Your task to perform on an android device: Turn off the flashlight Image 0: 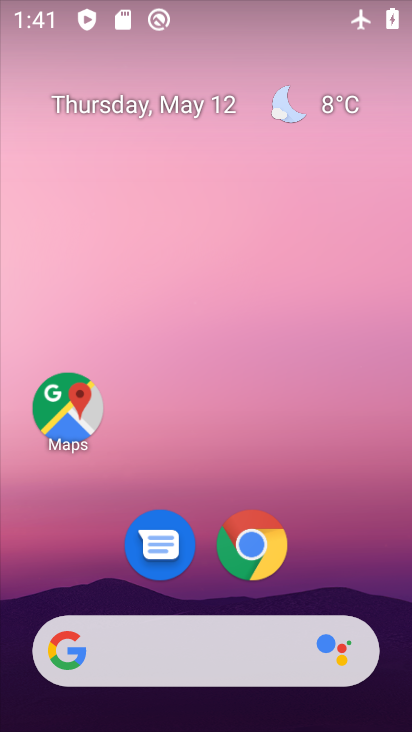
Step 0: drag from (225, 10) to (215, 321)
Your task to perform on an android device: Turn off the flashlight Image 1: 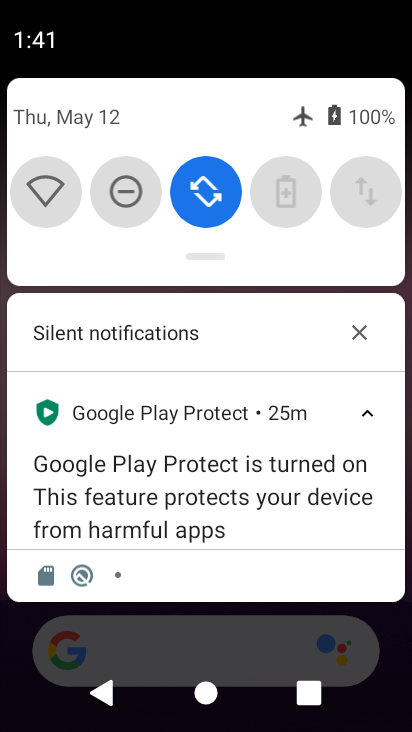
Step 1: drag from (212, 256) to (209, 381)
Your task to perform on an android device: Turn off the flashlight Image 2: 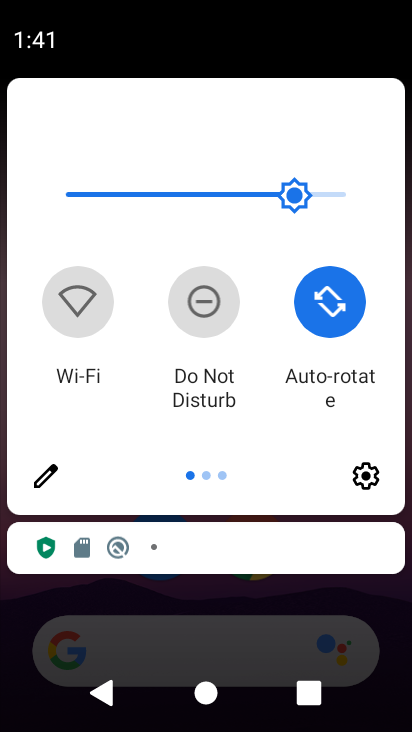
Step 2: click (43, 470)
Your task to perform on an android device: Turn off the flashlight Image 3: 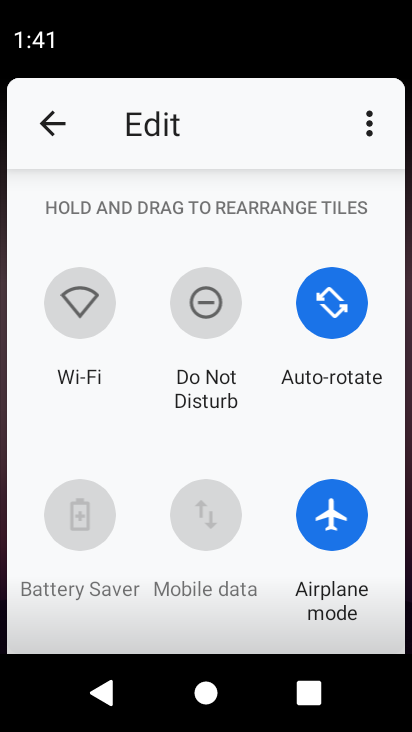
Step 3: task complete